Your task to perform on an android device: turn off translation in the chrome app Image 0: 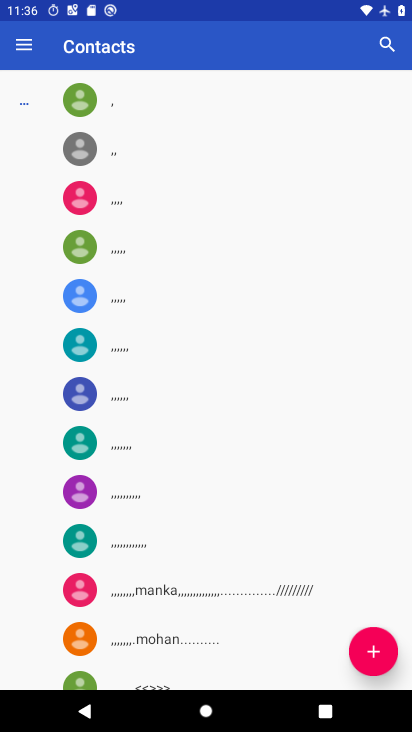
Step 0: press home button
Your task to perform on an android device: turn off translation in the chrome app Image 1: 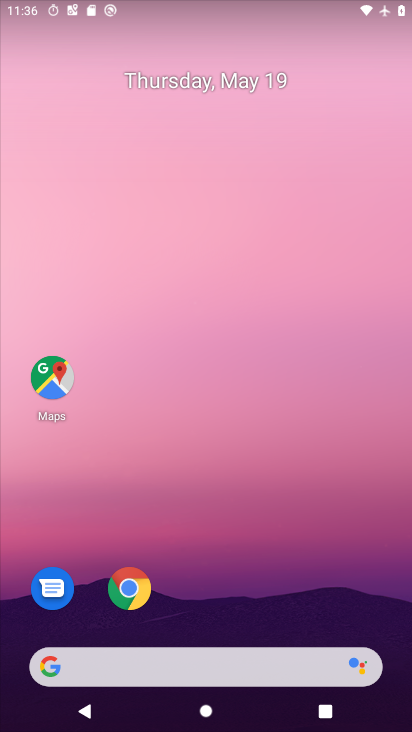
Step 1: click (132, 593)
Your task to perform on an android device: turn off translation in the chrome app Image 2: 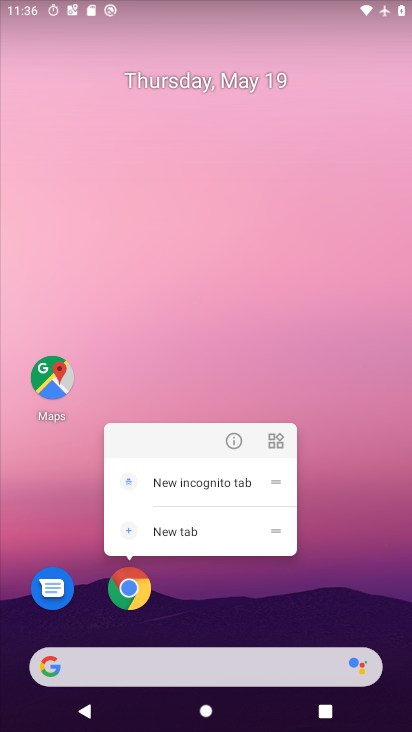
Step 2: click (132, 598)
Your task to perform on an android device: turn off translation in the chrome app Image 3: 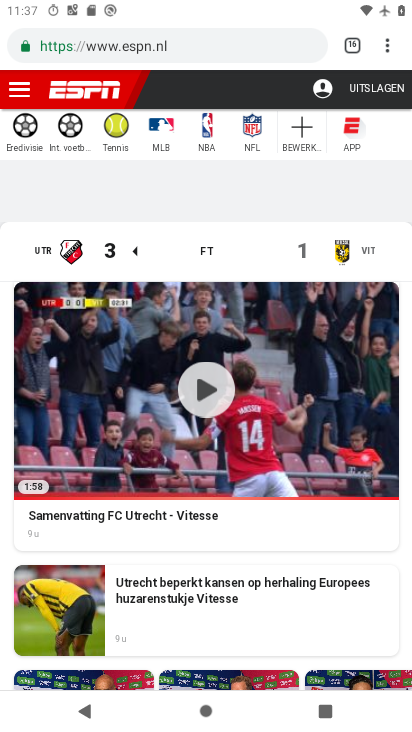
Step 3: drag from (382, 47) to (246, 553)
Your task to perform on an android device: turn off translation in the chrome app Image 4: 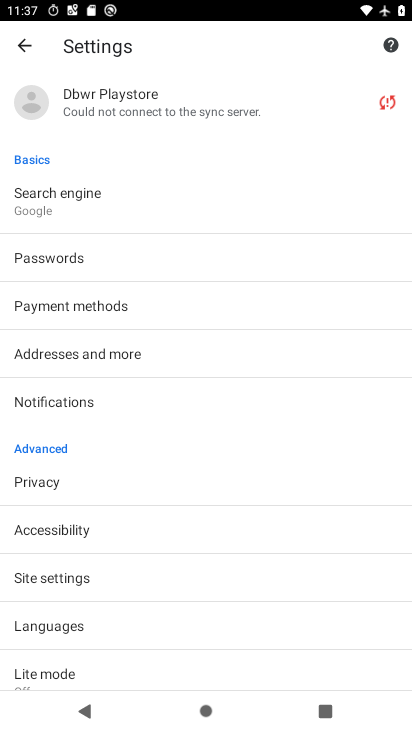
Step 4: click (76, 627)
Your task to perform on an android device: turn off translation in the chrome app Image 5: 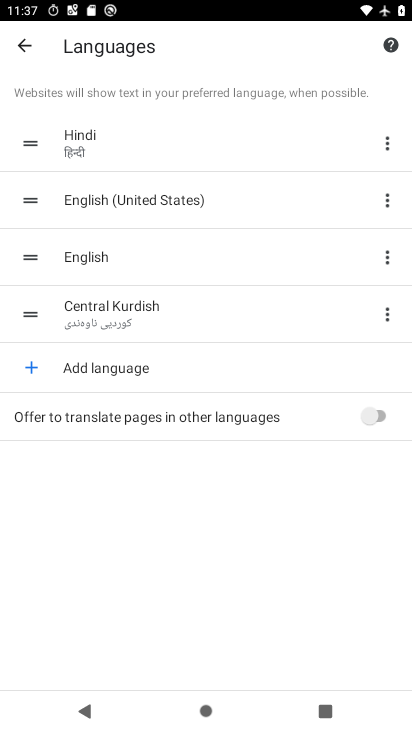
Step 5: task complete